Your task to perform on an android device: What's on my calendar today? Image 0: 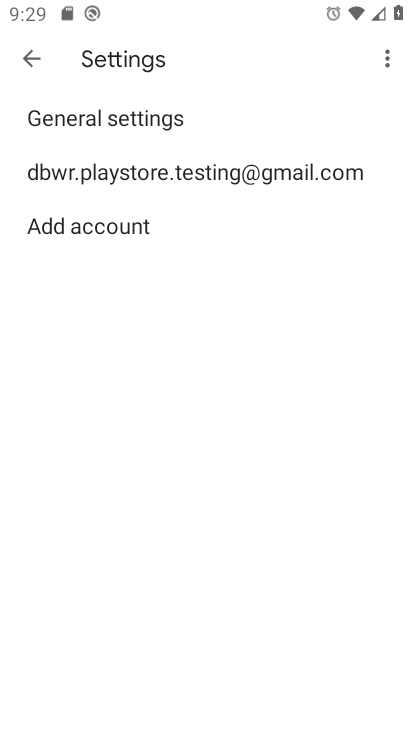
Step 0: press home button
Your task to perform on an android device: What's on my calendar today? Image 1: 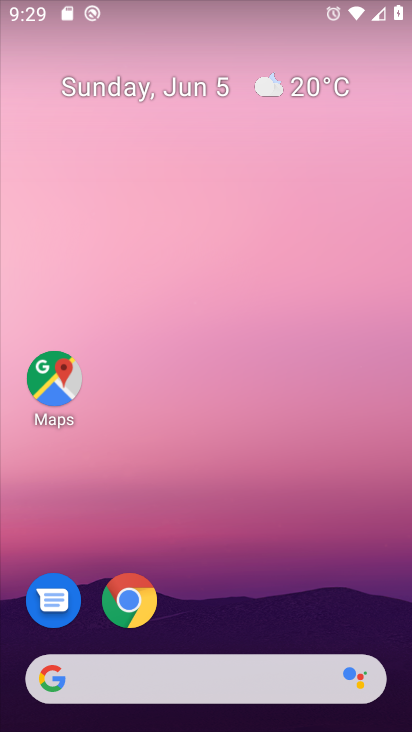
Step 1: drag from (234, 587) to (268, 14)
Your task to perform on an android device: What's on my calendar today? Image 2: 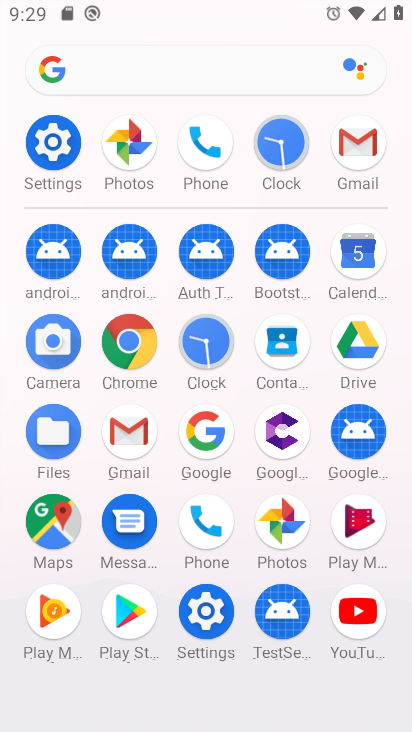
Step 2: click (361, 246)
Your task to perform on an android device: What's on my calendar today? Image 3: 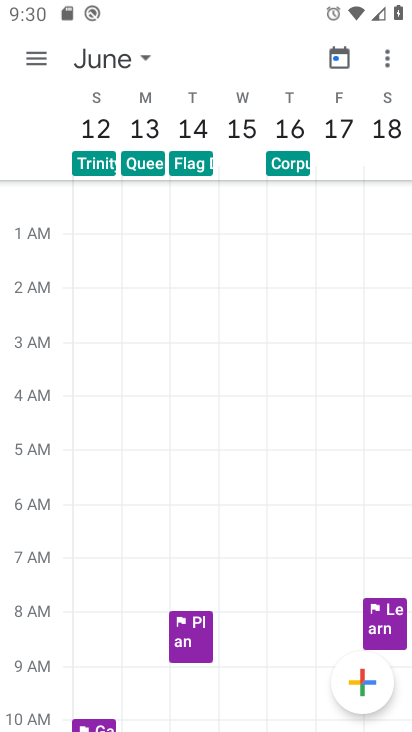
Step 3: drag from (109, 343) to (392, 345)
Your task to perform on an android device: What's on my calendar today? Image 4: 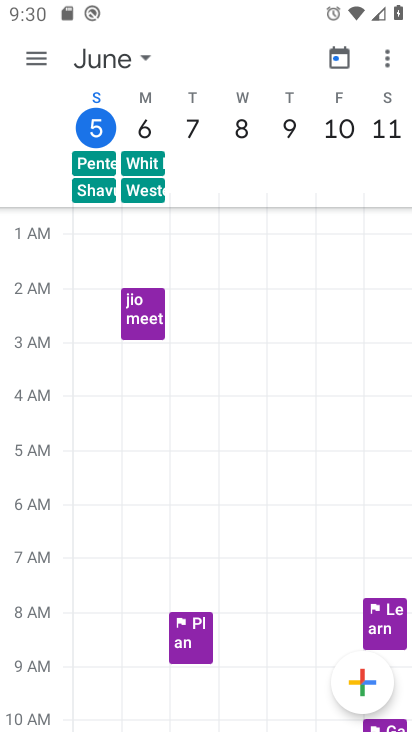
Step 4: click (103, 128)
Your task to perform on an android device: What's on my calendar today? Image 5: 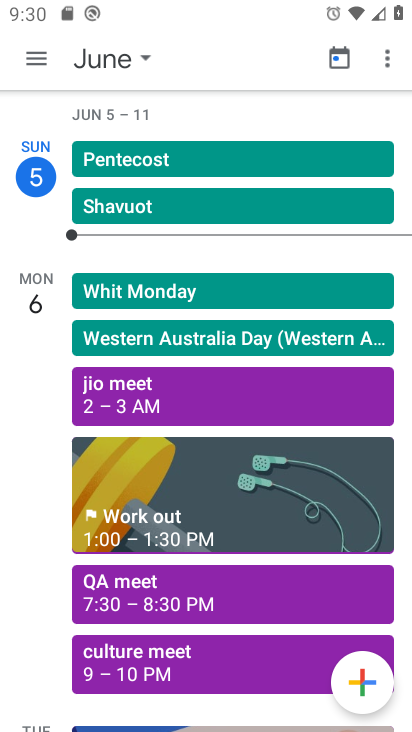
Step 5: task complete